Your task to perform on an android device: Open Youtube and go to "Your channel" Image 0: 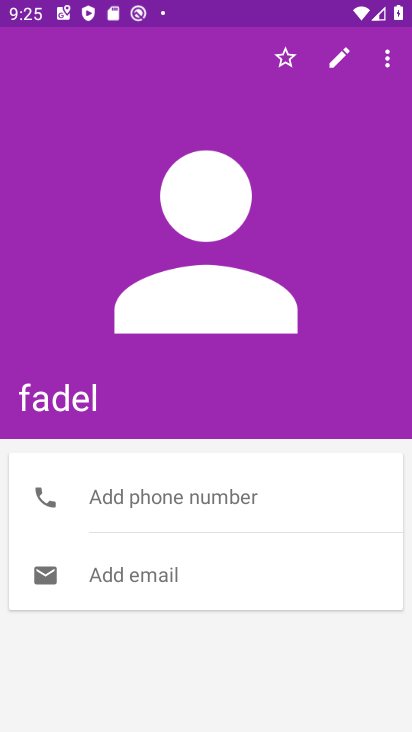
Step 0: press home button
Your task to perform on an android device: Open Youtube and go to "Your channel" Image 1: 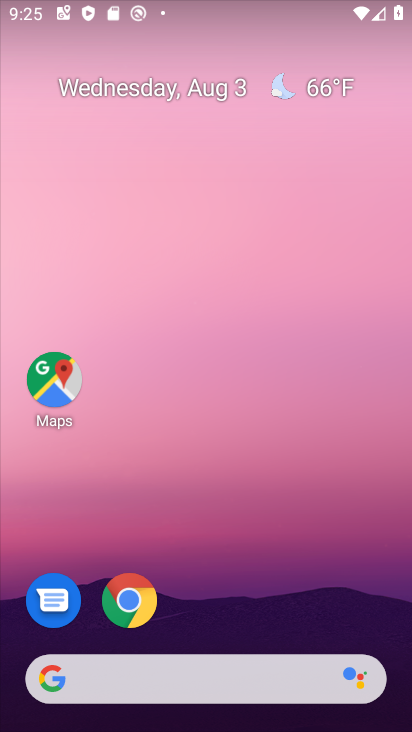
Step 1: drag from (202, 633) to (250, 4)
Your task to perform on an android device: Open Youtube and go to "Your channel" Image 2: 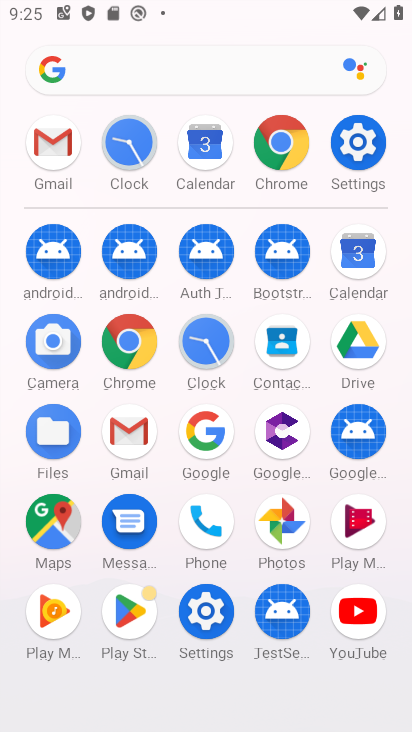
Step 2: click (350, 651)
Your task to perform on an android device: Open Youtube and go to "Your channel" Image 3: 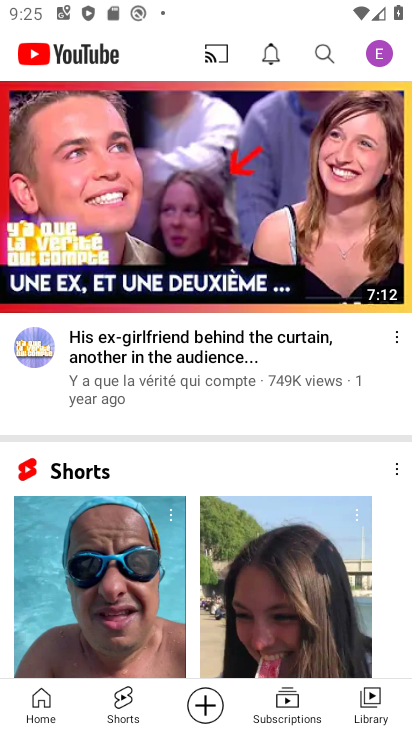
Step 3: click (376, 47)
Your task to perform on an android device: Open Youtube and go to "Your channel" Image 4: 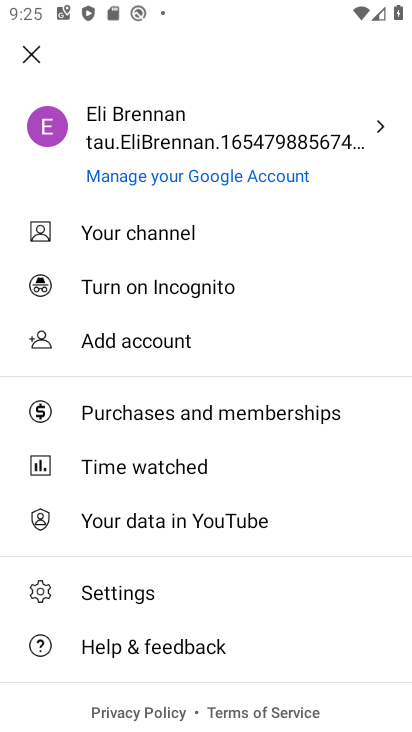
Step 4: click (115, 231)
Your task to perform on an android device: Open Youtube and go to "Your channel" Image 5: 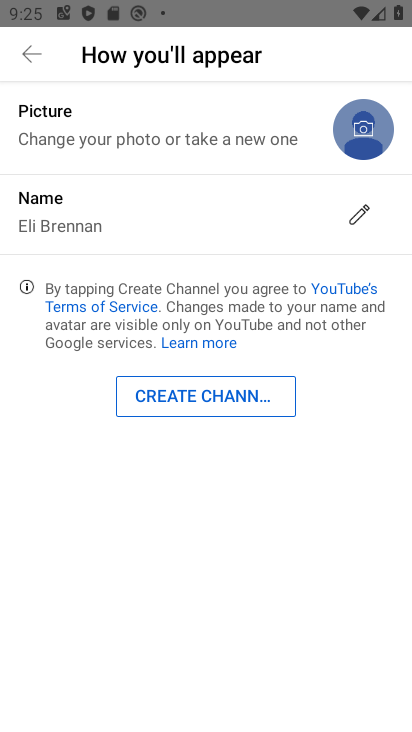
Step 5: task complete